Your task to perform on an android device: Open display settings Image 0: 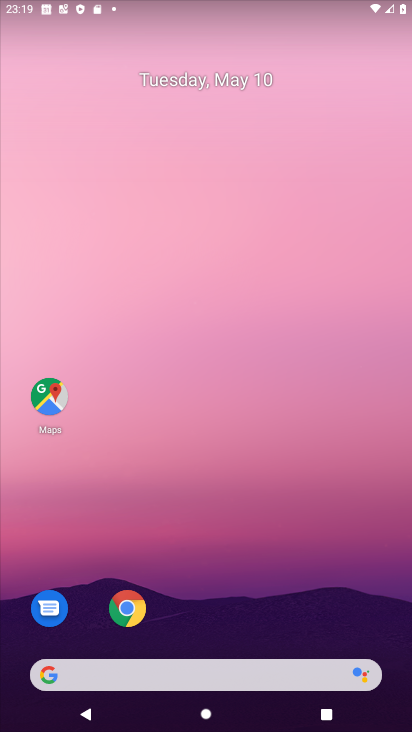
Step 0: drag from (266, 651) to (257, 299)
Your task to perform on an android device: Open display settings Image 1: 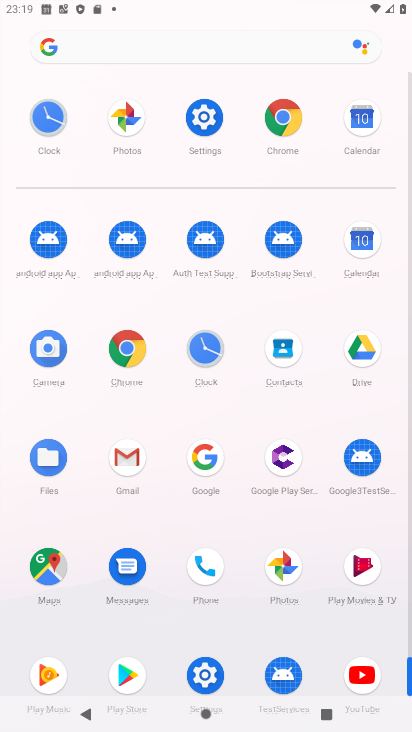
Step 1: click (193, 114)
Your task to perform on an android device: Open display settings Image 2: 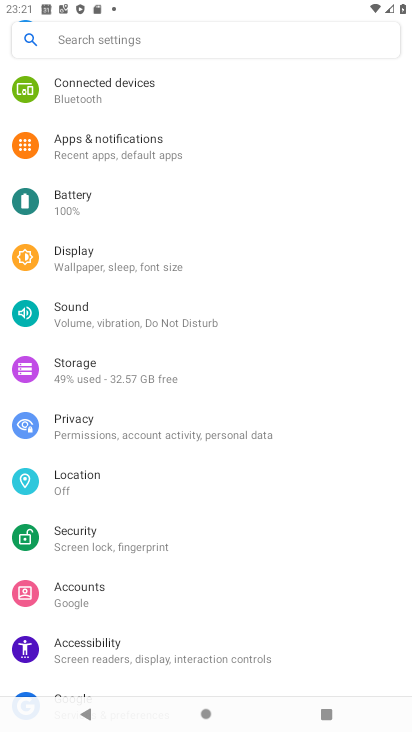
Step 2: task complete